Your task to perform on an android device: Search for Mexican restaurants on Maps Image 0: 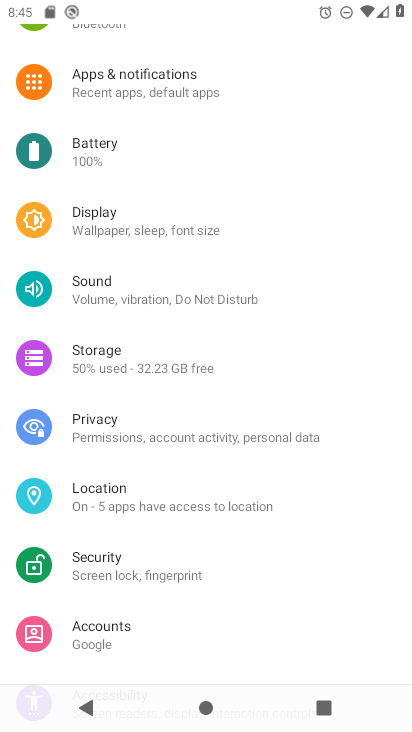
Step 0: press home button
Your task to perform on an android device: Search for Mexican restaurants on Maps Image 1: 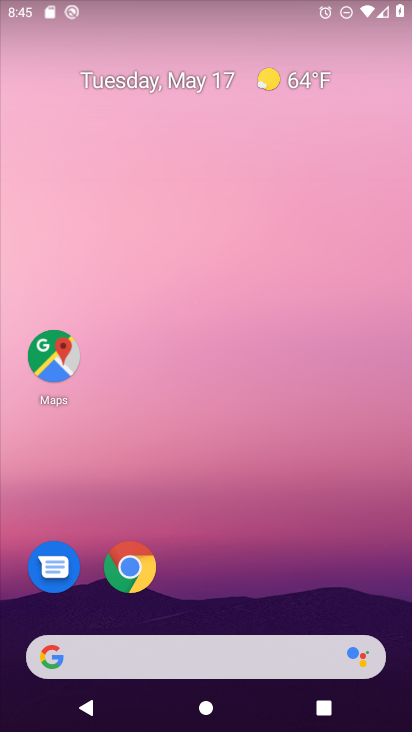
Step 1: drag from (375, 605) to (289, 59)
Your task to perform on an android device: Search for Mexican restaurants on Maps Image 2: 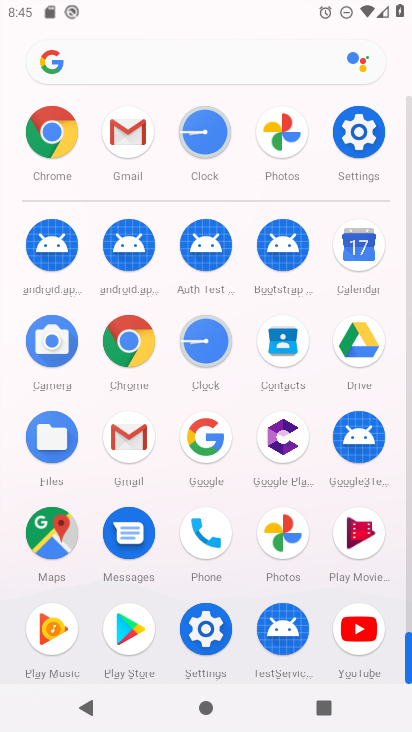
Step 2: click (57, 534)
Your task to perform on an android device: Search for Mexican restaurants on Maps Image 3: 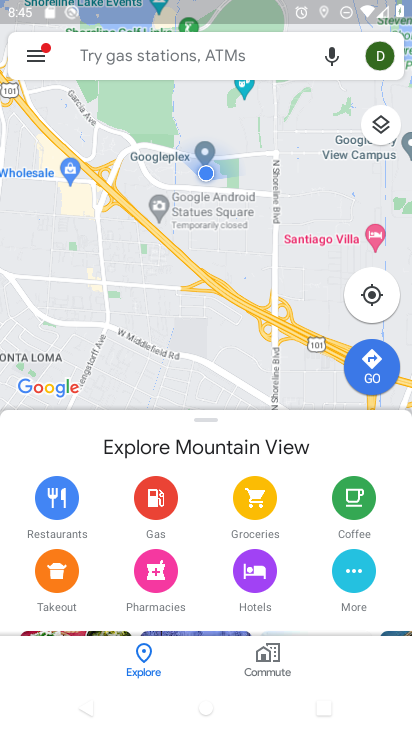
Step 3: click (191, 60)
Your task to perform on an android device: Search for Mexican restaurants on Maps Image 4: 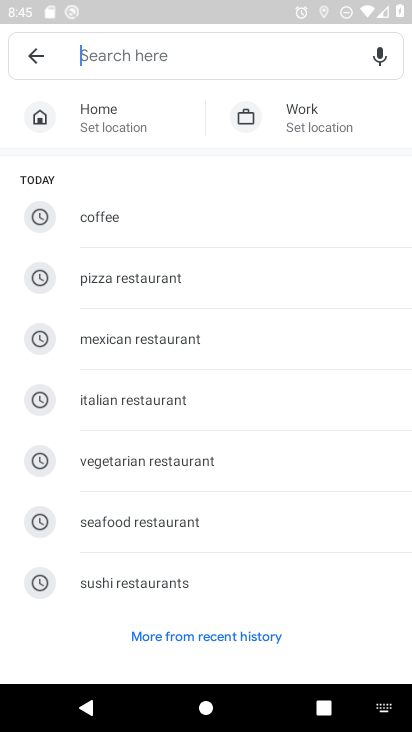
Step 4: click (140, 352)
Your task to perform on an android device: Search for Mexican restaurants on Maps Image 5: 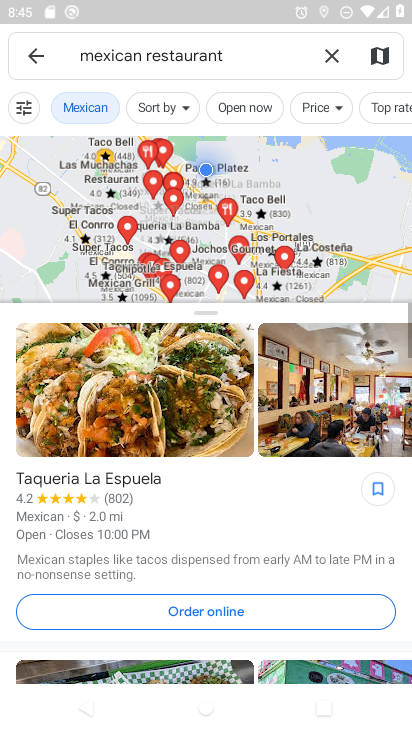
Step 5: task complete